Your task to perform on an android device: install app "Expedia: Hotels, Flights & Car" Image 0: 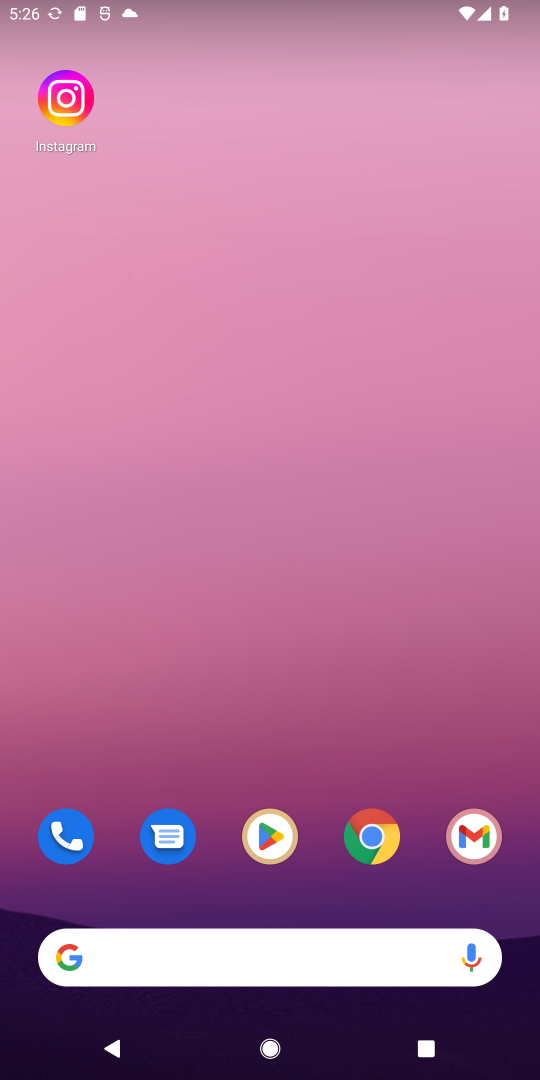
Step 0: click (271, 835)
Your task to perform on an android device: install app "Expedia: Hotels, Flights & Car" Image 1: 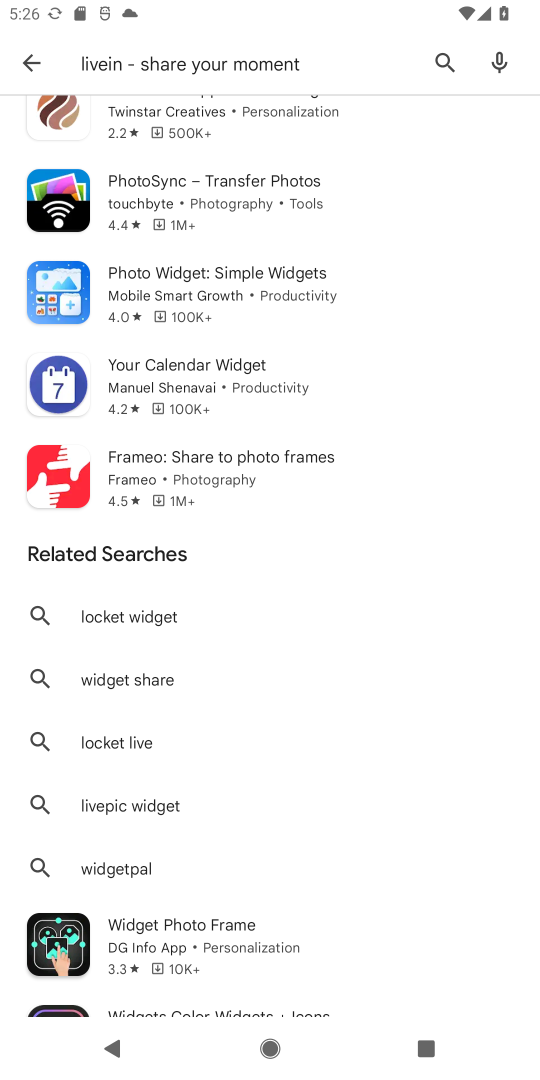
Step 1: click (448, 60)
Your task to perform on an android device: install app "Expedia: Hotels, Flights & Car" Image 2: 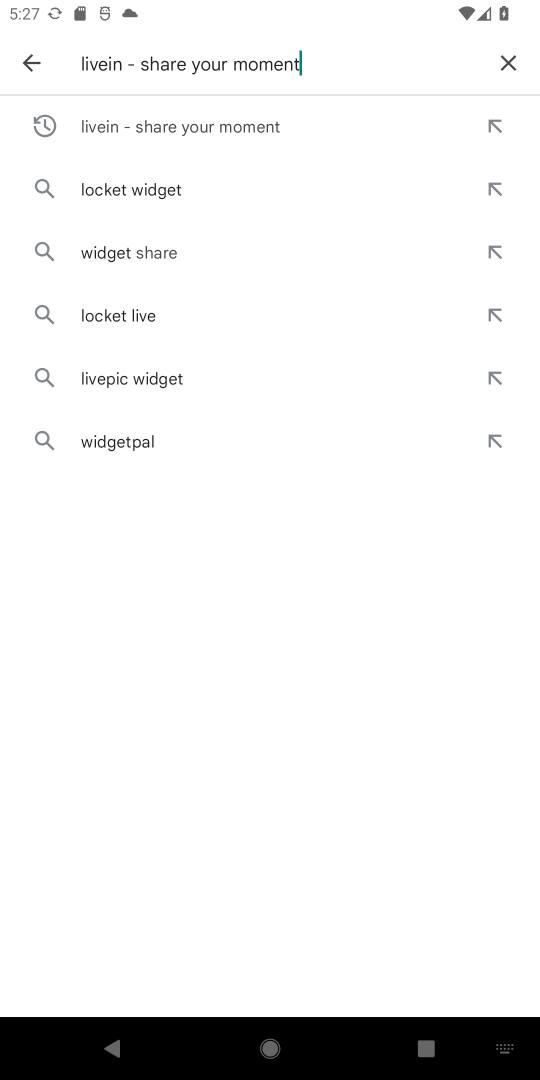
Step 2: click (512, 65)
Your task to perform on an android device: install app "Expedia: Hotels, Flights & Car" Image 3: 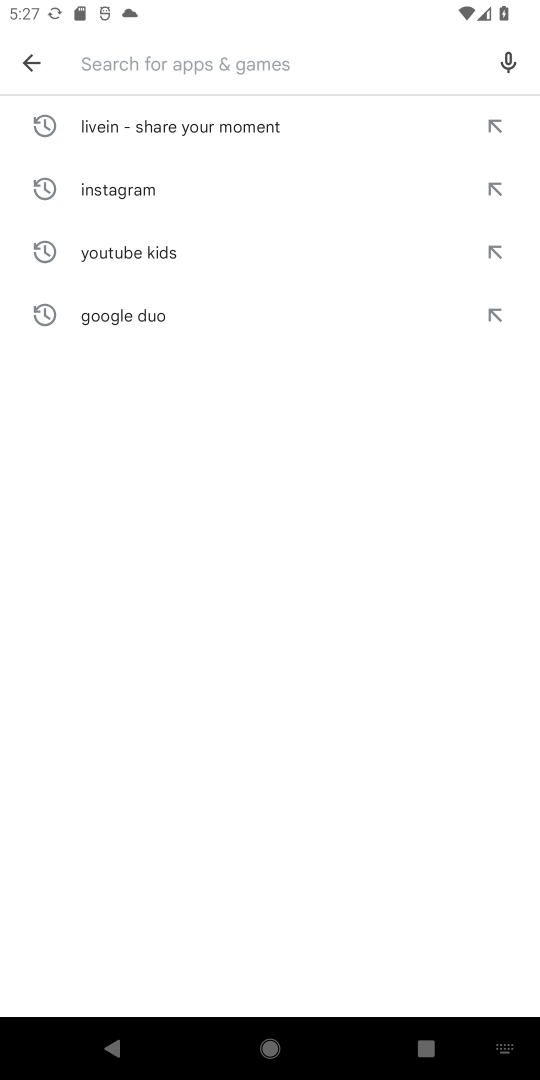
Step 3: type "expedia: Hotels, Flights & Car"
Your task to perform on an android device: install app "Expedia: Hotels, Flights & Car" Image 4: 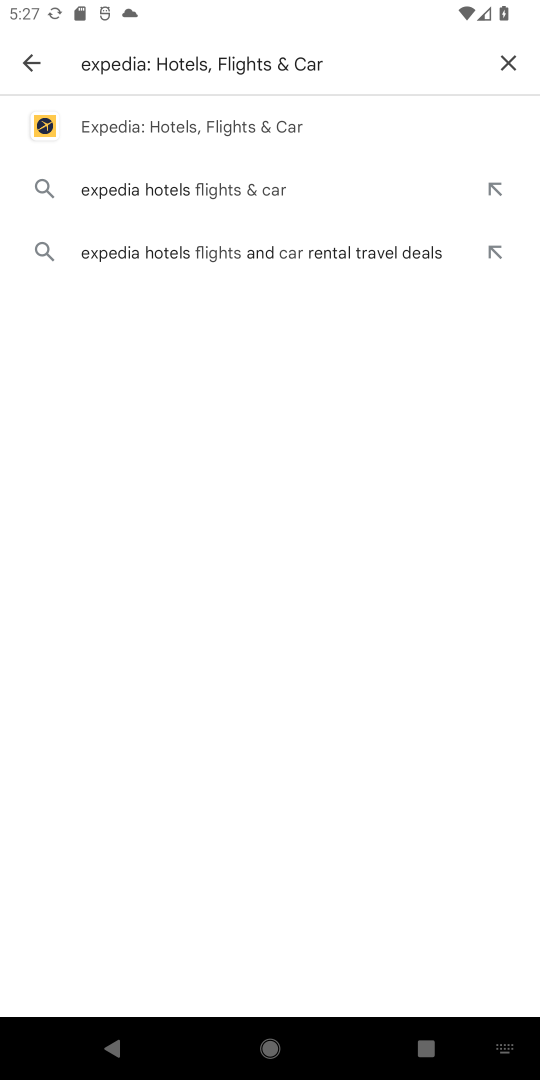
Step 4: click (133, 119)
Your task to perform on an android device: install app "Expedia: Hotels, Flights & Car" Image 5: 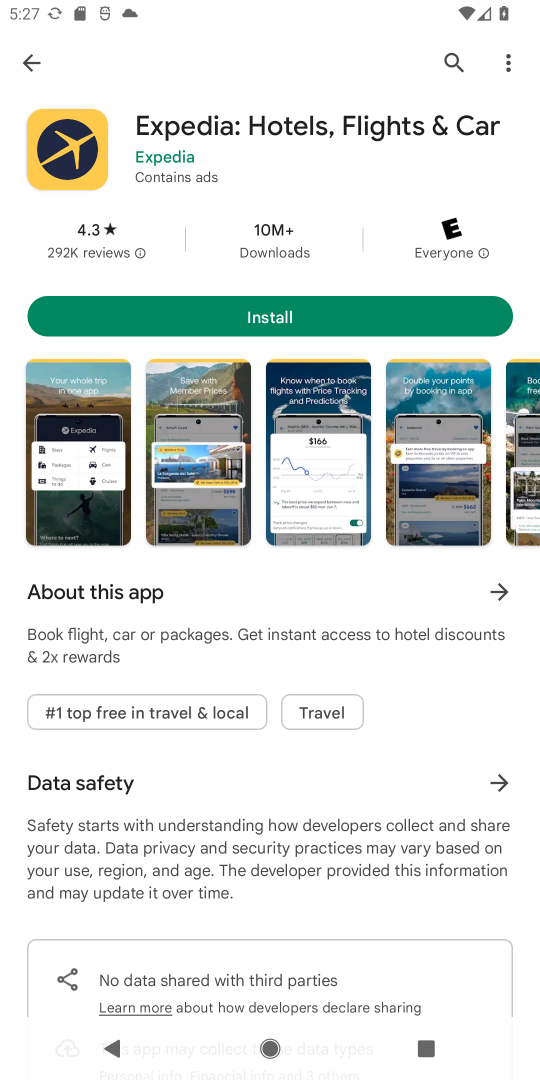
Step 5: click (282, 312)
Your task to perform on an android device: install app "Expedia: Hotels, Flights & Car" Image 6: 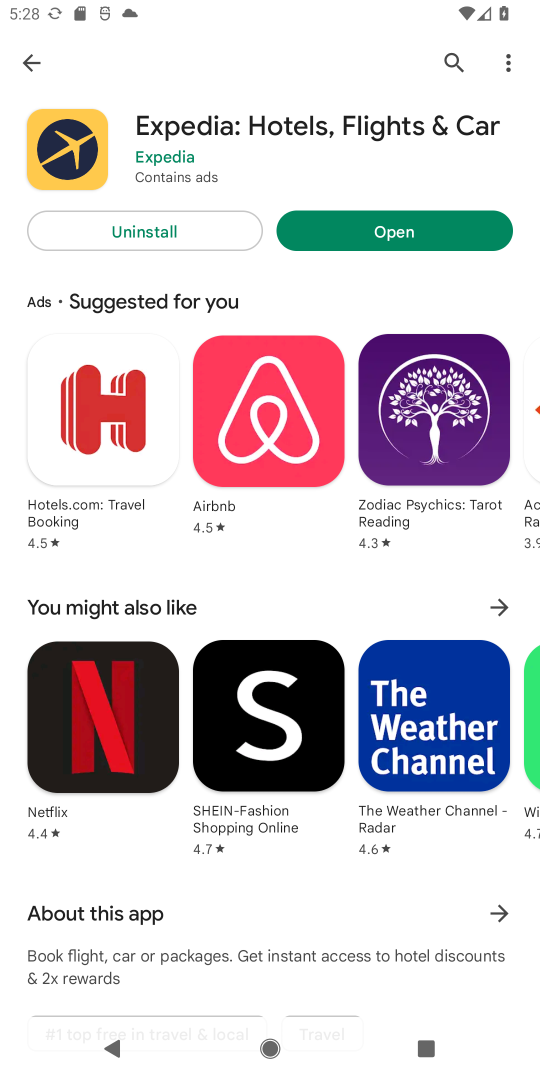
Step 6: task complete